Your task to perform on an android device: search for accent chairs on article.com Image 0: 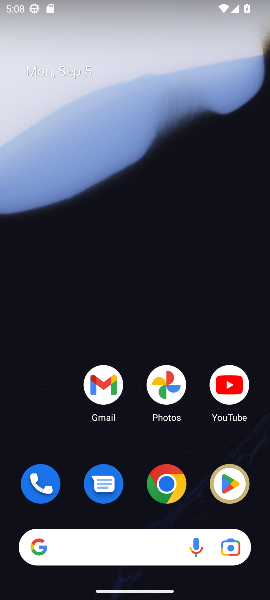
Step 0: click (169, 491)
Your task to perform on an android device: search for accent chairs on article.com Image 1: 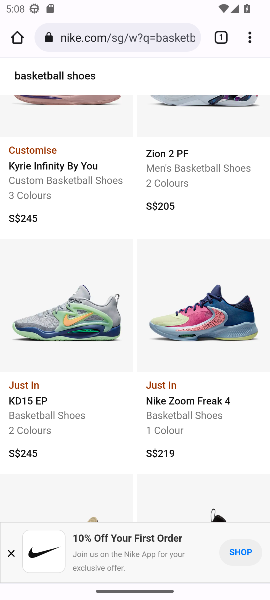
Step 1: click (155, 38)
Your task to perform on an android device: search for accent chairs on article.com Image 2: 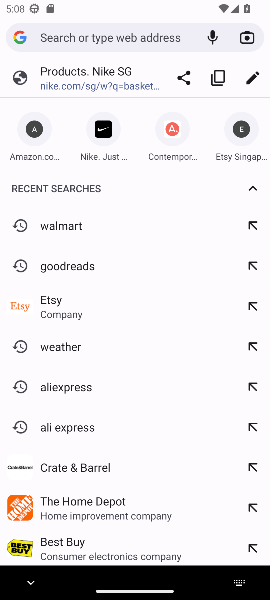
Step 2: type "article.com"
Your task to perform on an android device: search for accent chairs on article.com Image 3: 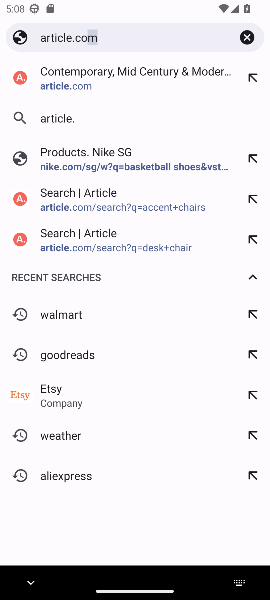
Step 3: press enter
Your task to perform on an android device: search for accent chairs on article.com Image 4: 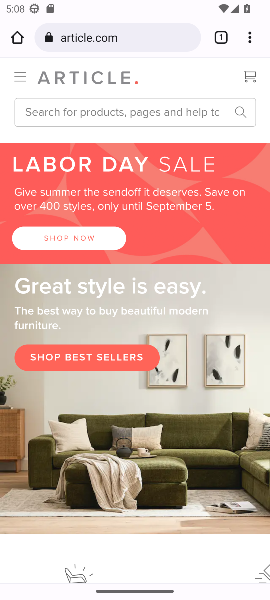
Step 4: click (193, 104)
Your task to perform on an android device: search for accent chairs on article.com Image 5: 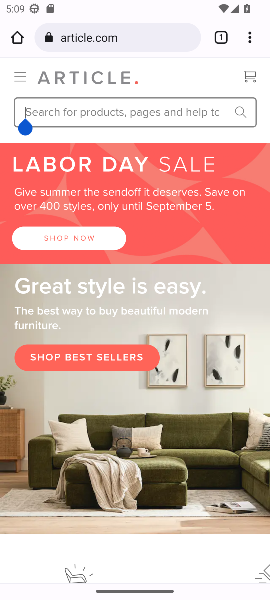
Step 5: type "accent chairs"
Your task to perform on an android device: search for accent chairs on article.com Image 6: 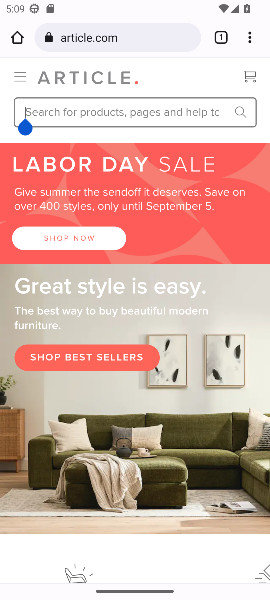
Step 6: press enter
Your task to perform on an android device: search for accent chairs on article.com Image 7: 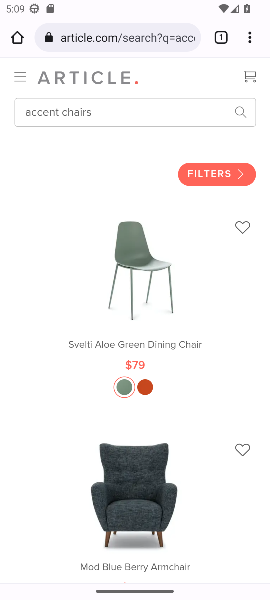
Step 7: task complete